Your task to perform on an android device: Open Google Chrome and click the shortcut for Amazon.com Image 0: 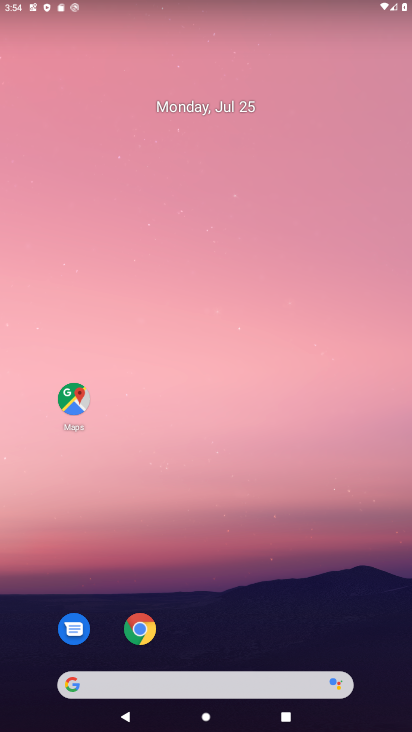
Step 0: drag from (221, 670) to (248, 9)
Your task to perform on an android device: Open Google Chrome and click the shortcut for Amazon.com Image 1: 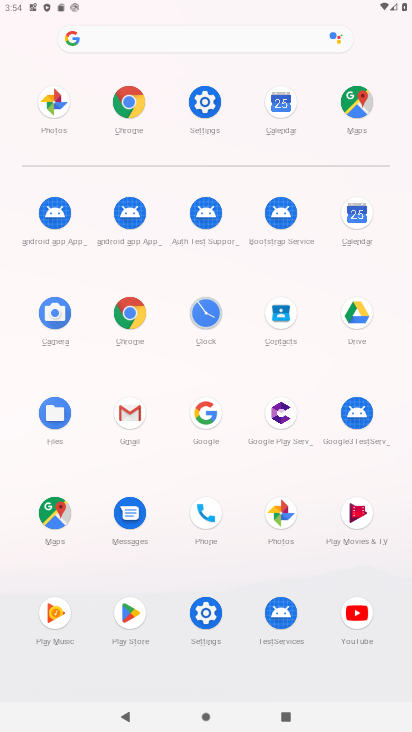
Step 1: click (126, 313)
Your task to perform on an android device: Open Google Chrome and click the shortcut for Amazon.com Image 2: 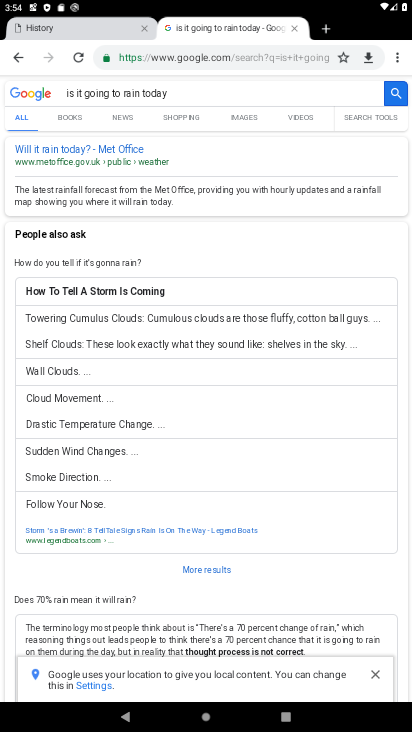
Step 2: click (245, 52)
Your task to perform on an android device: Open Google Chrome and click the shortcut for Amazon.com Image 3: 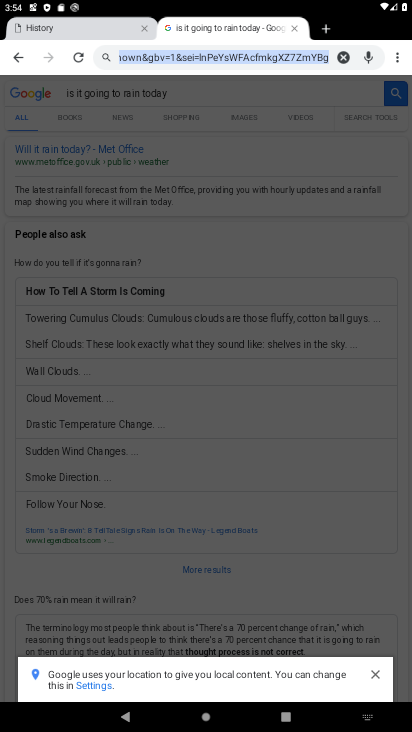
Step 3: type "amazon"
Your task to perform on an android device: Open Google Chrome and click the shortcut for Amazon.com Image 4: 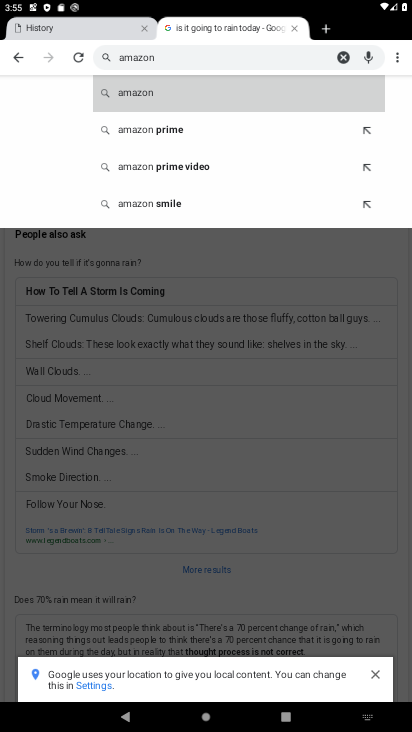
Step 4: click (207, 86)
Your task to perform on an android device: Open Google Chrome and click the shortcut for Amazon.com Image 5: 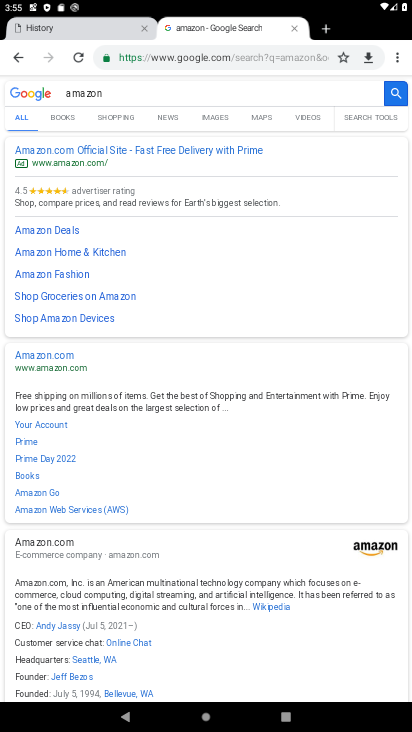
Step 5: task complete